Your task to perform on an android device: open a bookmark in the chrome app Image 0: 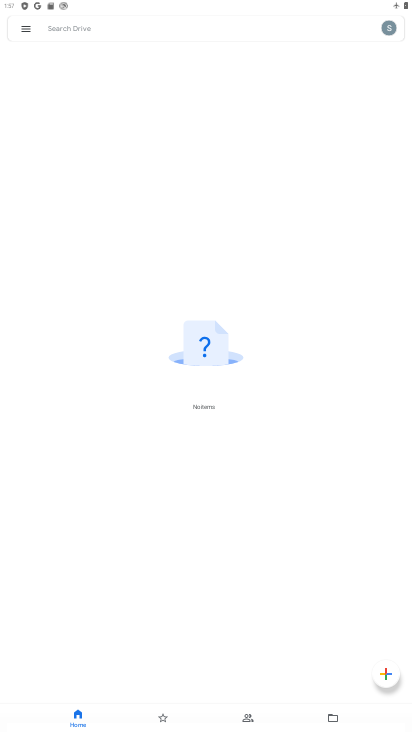
Step 0: press home button
Your task to perform on an android device: open a bookmark in the chrome app Image 1: 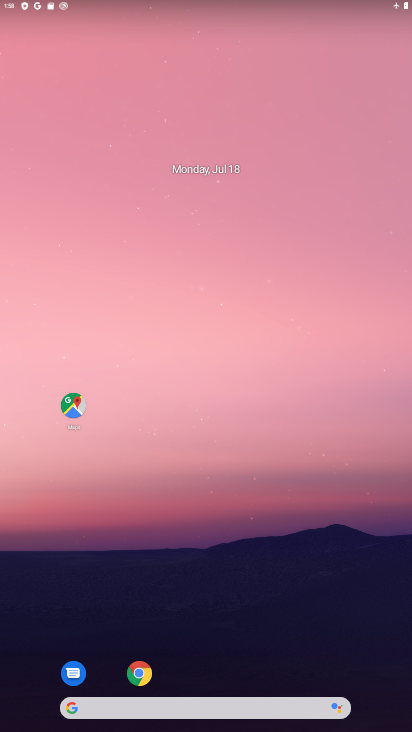
Step 1: click (140, 671)
Your task to perform on an android device: open a bookmark in the chrome app Image 2: 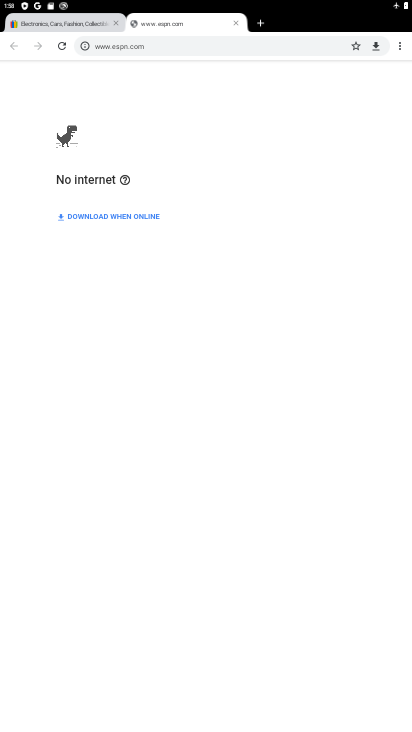
Step 2: click (400, 46)
Your task to perform on an android device: open a bookmark in the chrome app Image 3: 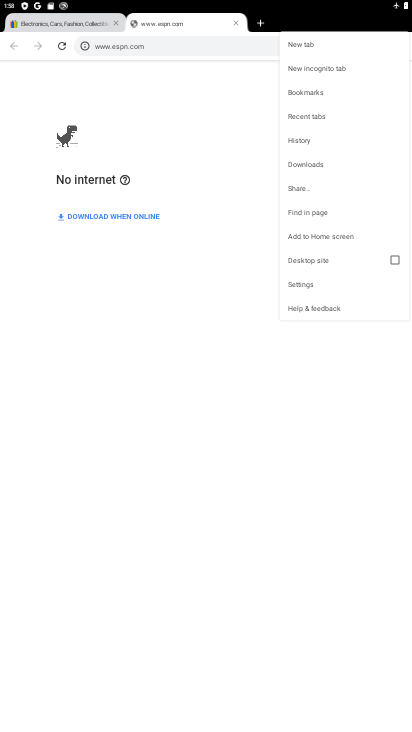
Step 3: click (320, 93)
Your task to perform on an android device: open a bookmark in the chrome app Image 4: 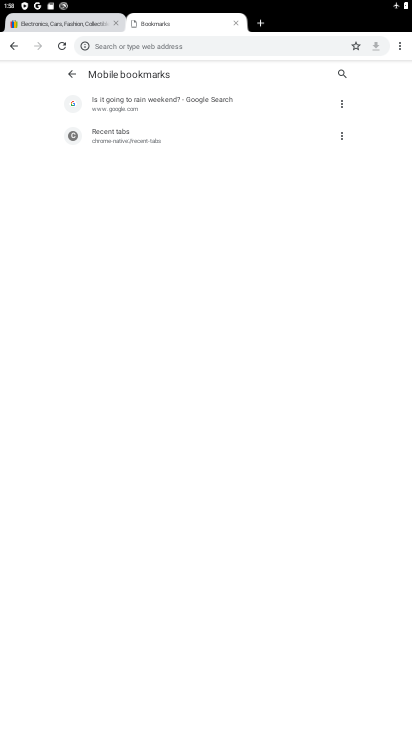
Step 4: task complete